Your task to perform on an android device: Open Chrome and go to settings Image 0: 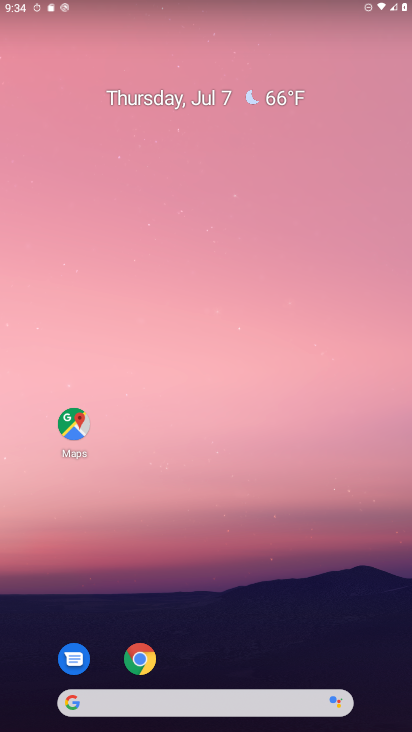
Step 0: drag from (385, 690) to (347, 22)
Your task to perform on an android device: Open Chrome and go to settings Image 1: 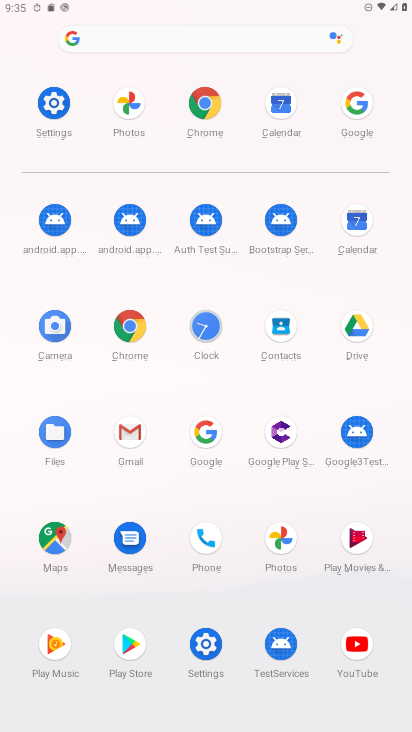
Step 1: click (125, 329)
Your task to perform on an android device: Open Chrome and go to settings Image 2: 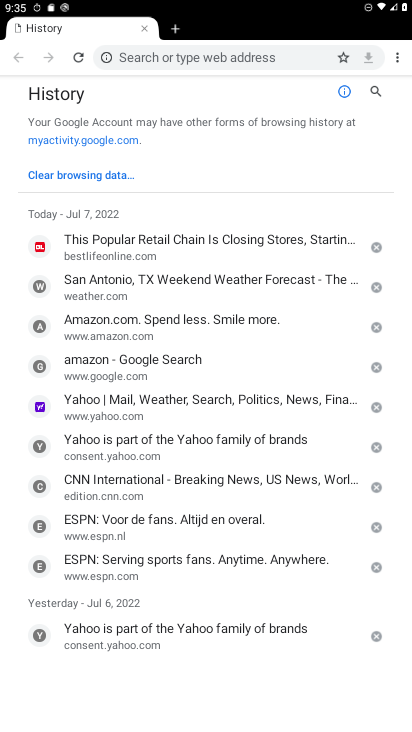
Step 2: click (391, 52)
Your task to perform on an android device: Open Chrome and go to settings Image 3: 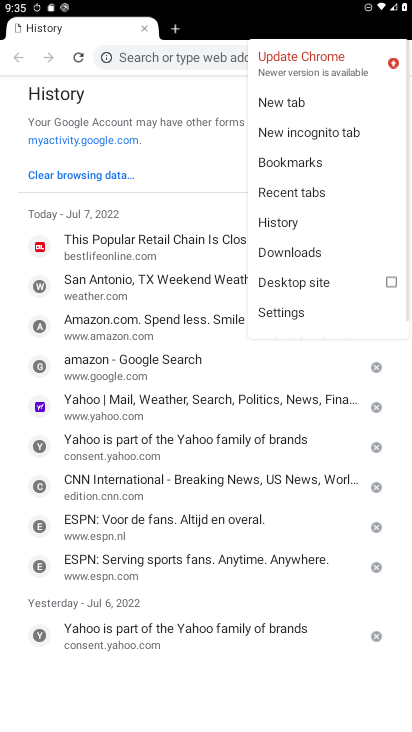
Step 3: click (289, 311)
Your task to perform on an android device: Open Chrome and go to settings Image 4: 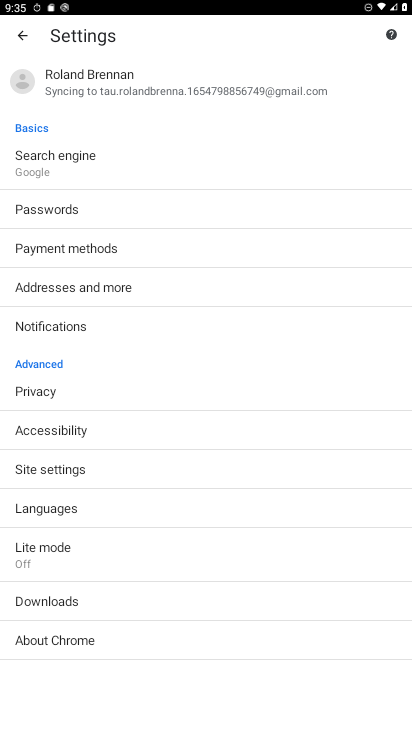
Step 4: task complete